Your task to perform on an android device: open app "Pluto TV - Live TV and Movies" (install if not already installed) Image 0: 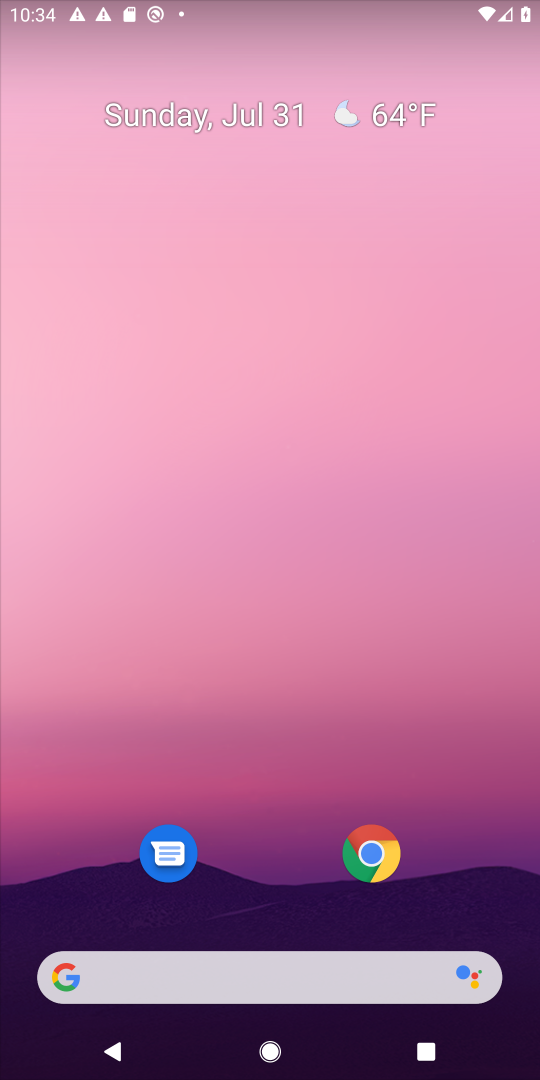
Step 0: drag from (307, 977) to (307, 155)
Your task to perform on an android device: open app "Pluto TV - Live TV and Movies" (install if not already installed) Image 1: 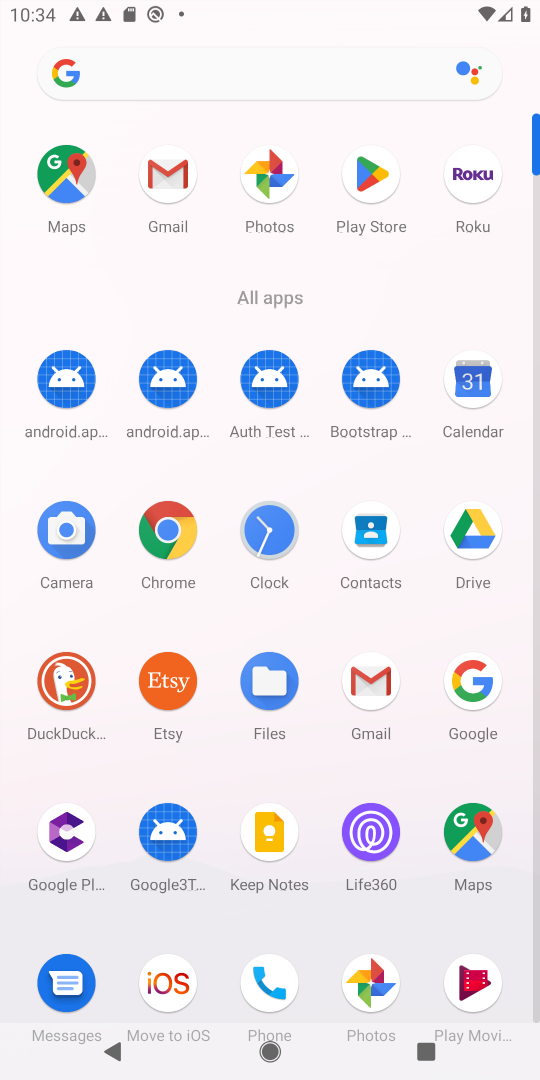
Step 1: click (373, 181)
Your task to perform on an android device: open app "Pluto TV - Live TV and Movies" (install if not already installed) Image 2: 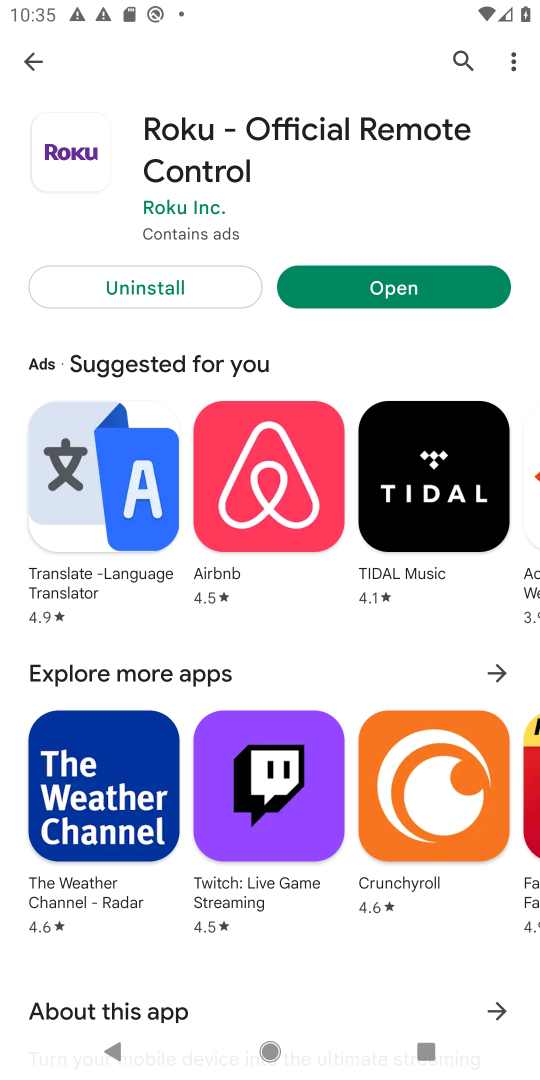
Step 2: click (463, 55)
Your task to perform on an android device: open app "Pluto TV - Live TV and Movies" (install if not already installed) Image 3: 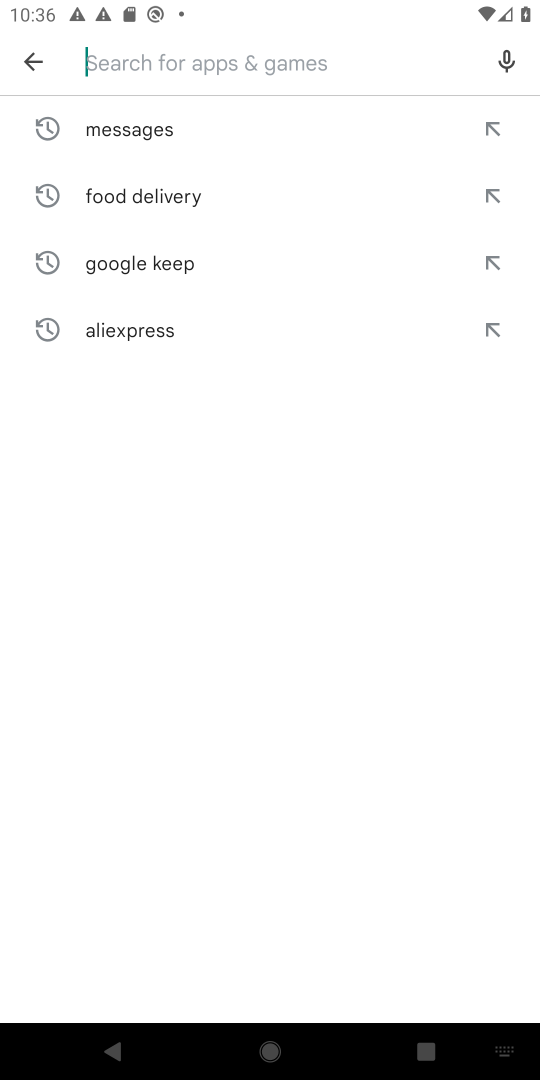
Step 3: type "Pluto TV - Live TV and Movies"
Your task to perform on an android device: open app "Pluto TV - Live TV and Movies" (install if not already installed) Image 4: 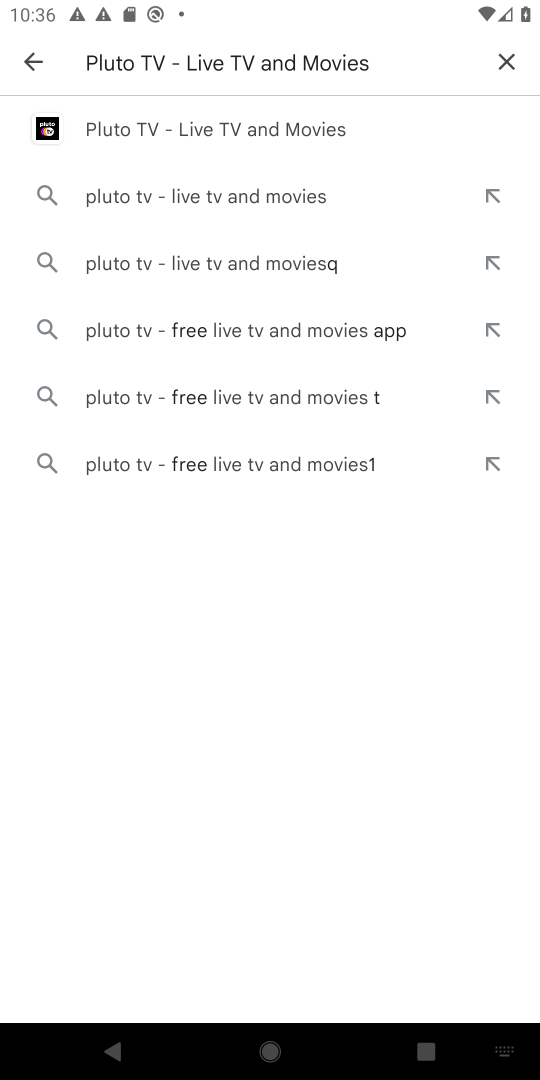
Step 4: click (256, 124)
Your task to perform on an android device: open app "Pluto TV - Live TV and Movies" (install if not already installed) Image 5: 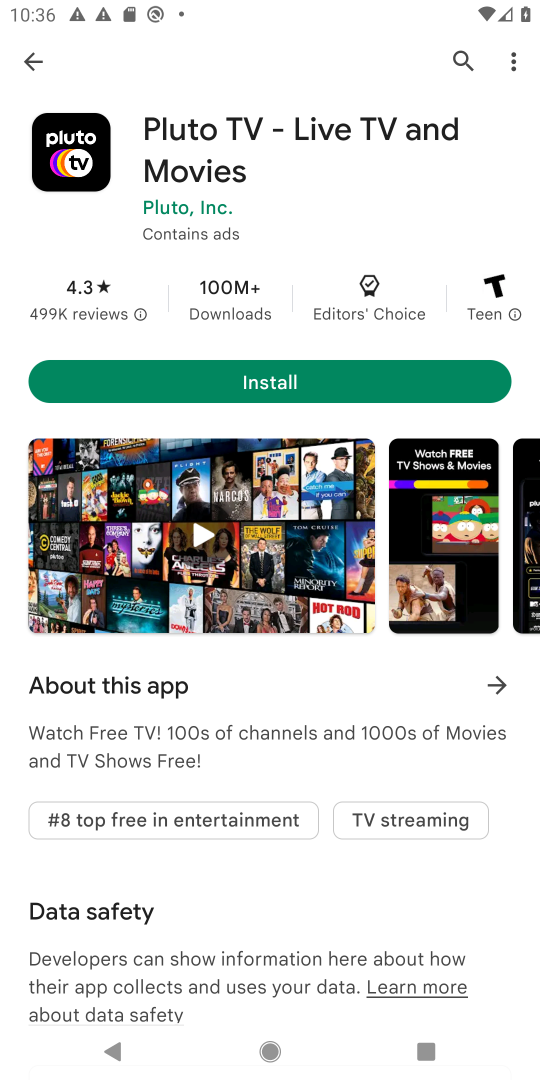
Step 5: click (260, 375)
Your task to perform on an android device: open app "Pluto TV - Live TV and Movies" (install if not already installed) Image 6: 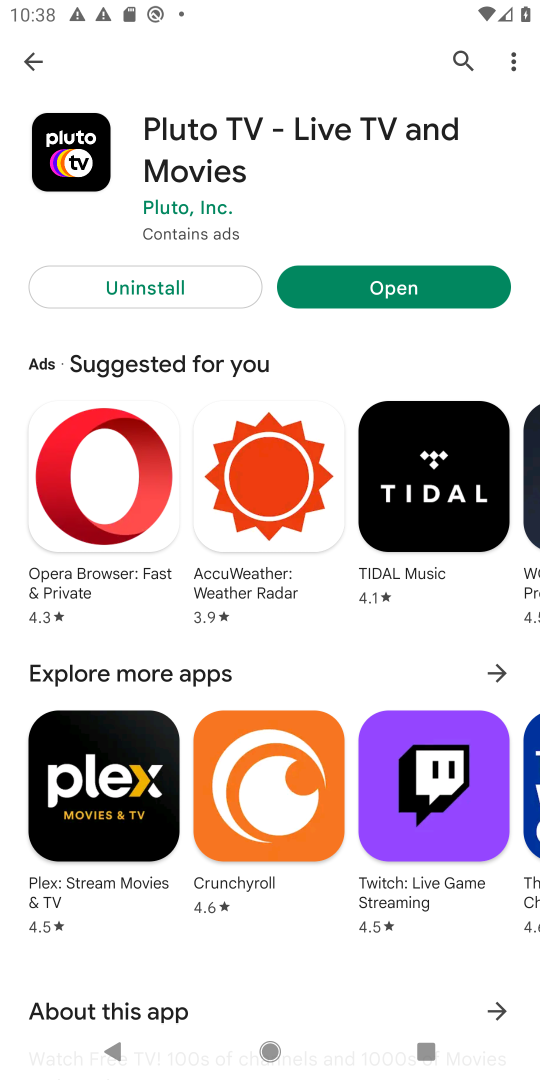
Step 6: task complete